Your task to perform on an android device: Open the stopwatch Image 0: 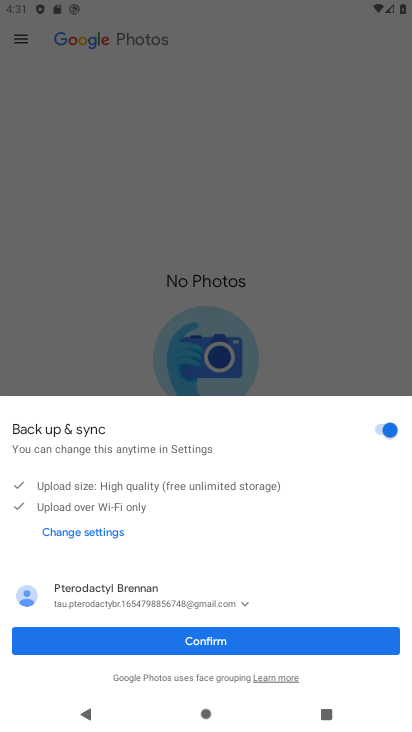
Step 0: press home button
Your task to perform on an android device: Open the stopwatch Image 1: 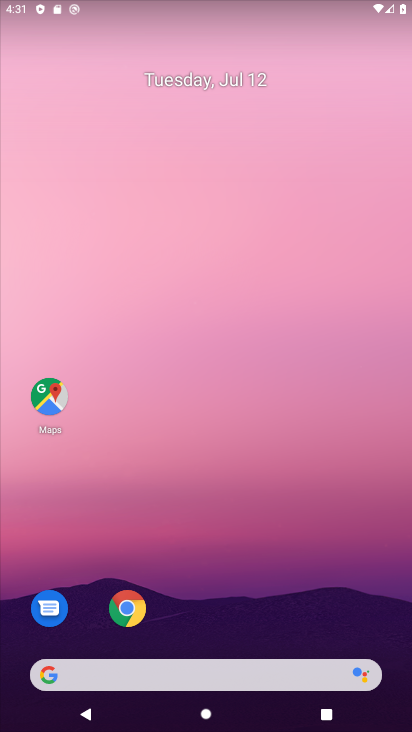
Step 1: drag from (194, 616) to (165, 37)
Your task to perform on an android device: Open the stopwatch Image 2: 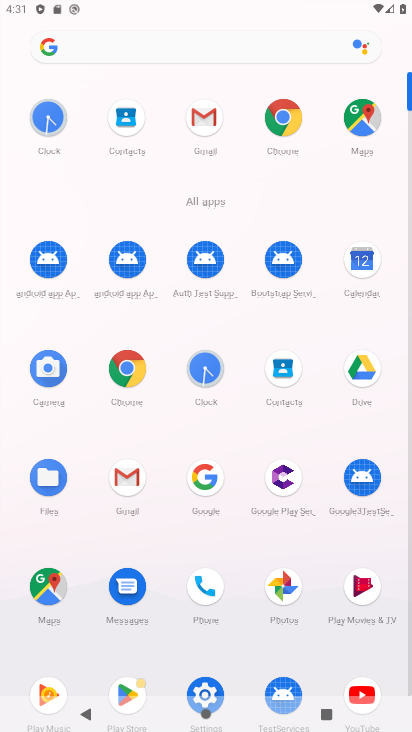
Step 2: click (47, 124)
Your task to perform on an android device: Open the stopwatch Image 3: 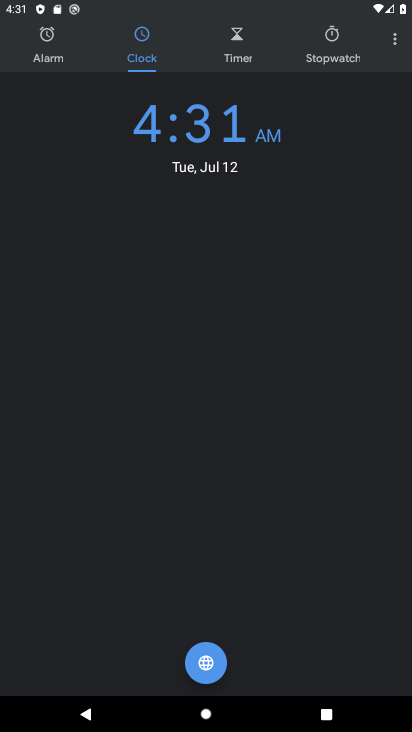
Step 3: click (334, 53)
Your task to perform on an android device: Open the stopwatch Image 4: 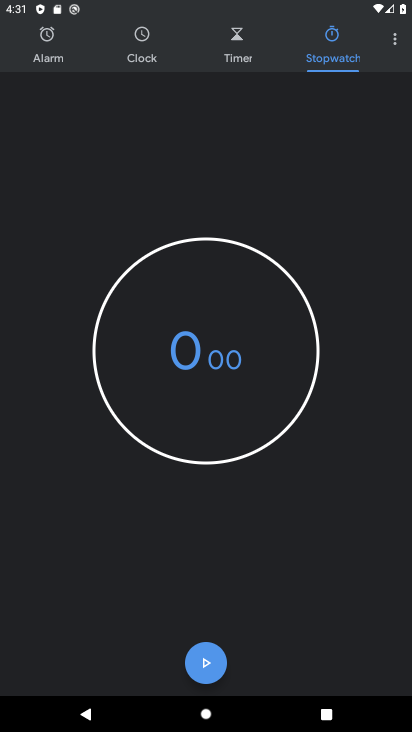
Step 4: task complete